Your task to perform on an android device: Turn on the flashlight Image 0: 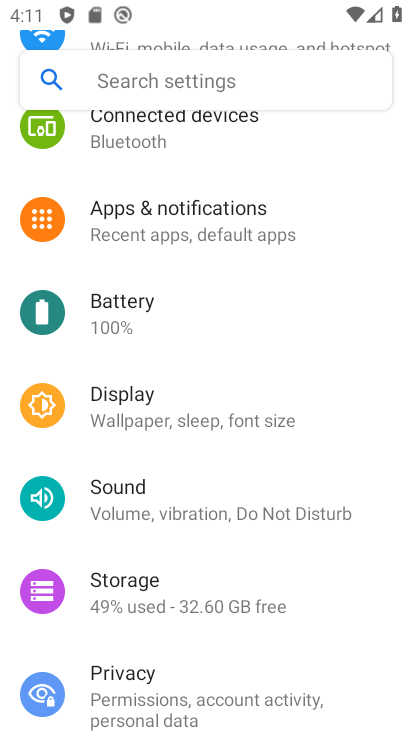
Step 0: drag from (267, 577) to (293, 148)
Your task to perform on an android device: Turn on the flashlight Image 1: 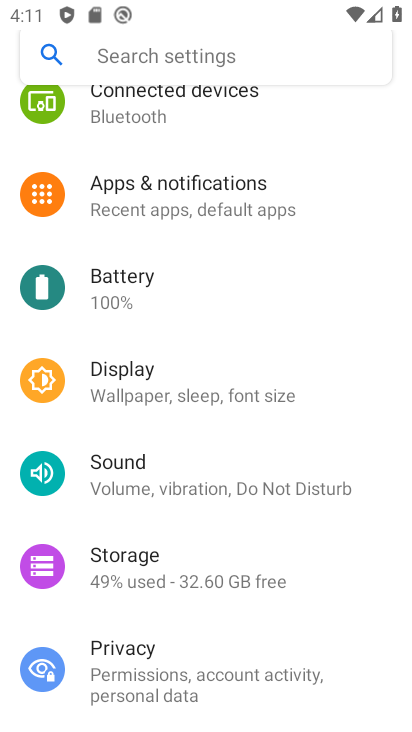
Step 1: task complete